Your task to perform on an android device: find snoozed emails in the gmail app Image 0: 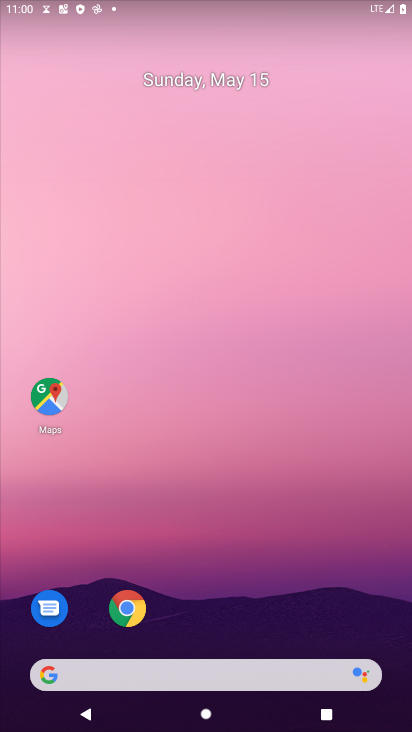
Step 0: drag from (346, 522) to (294, 142)
Your task to perform on an android device: find snoozed emails in the gmail app Image 1: 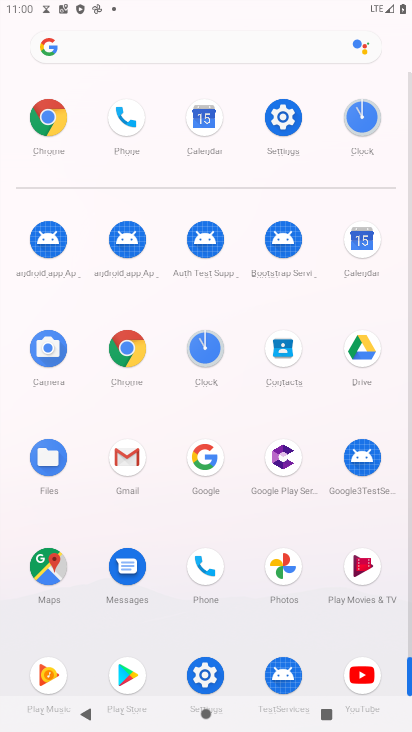
Step 1: click (127, 460)
Your task to perform on an android device: find snoozed emails in the gmail app Image 2: 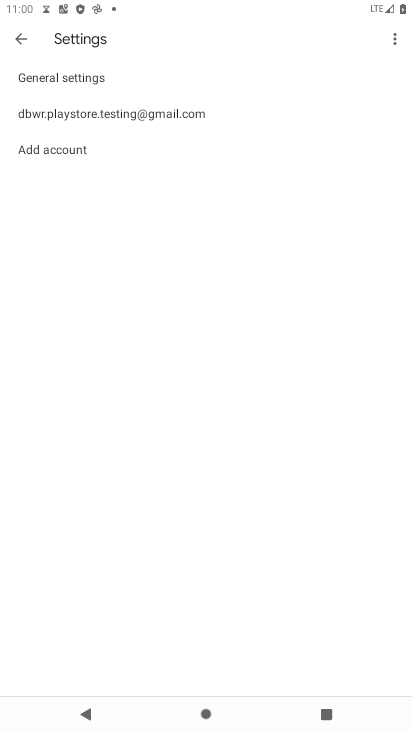
Step 2: click (55, 117)
Your task to perform on an android device: find snoozed emails in the gmail app Image 3: 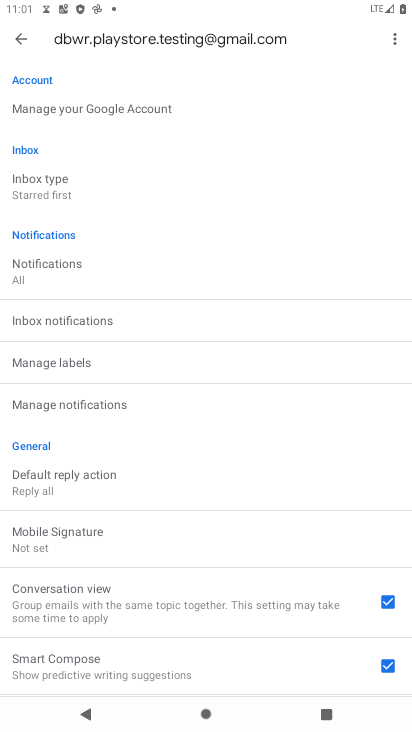
Step 3: click (21, 46)
Your task to perform on an android device: find snoozed emails in the gmail app Image 4: 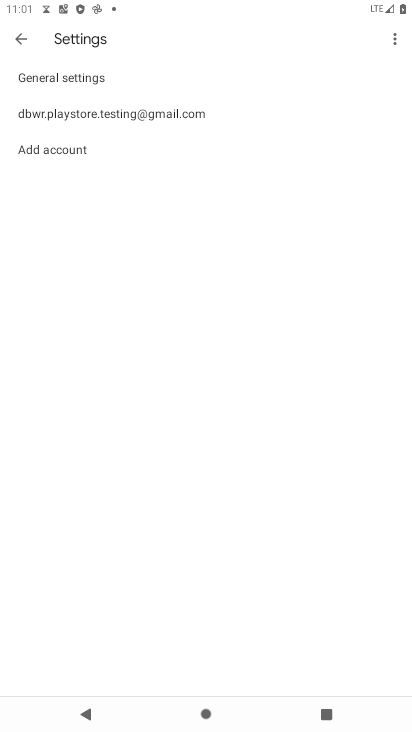
Step 4: click (21, 46)
Your task to perform on an android device: find snoozed emails in the gmail app Image 5: 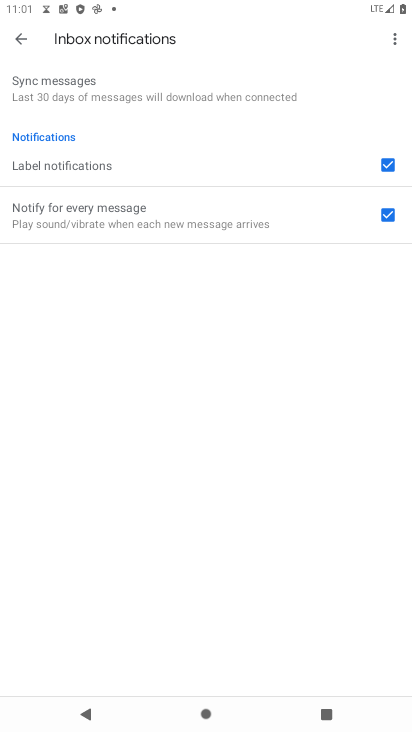
Step 5: click (20, 44)
Your task to perform on an android device: find snoozed emails in the gmail app Image 6: 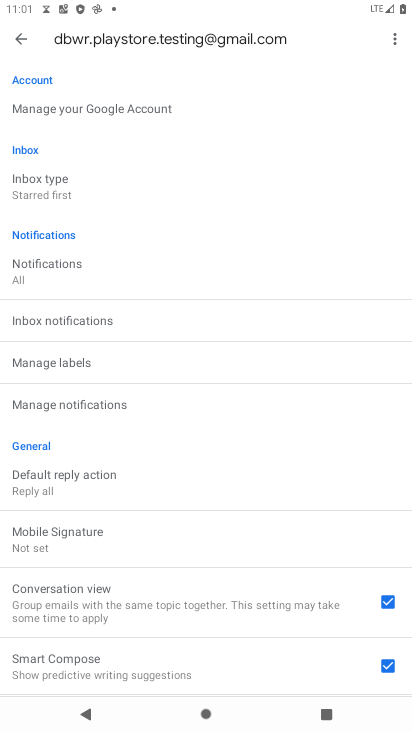
Step 6: click (20, 45)
Your task to perform on an android device: find snoozed emails in the gmail app Image 7: 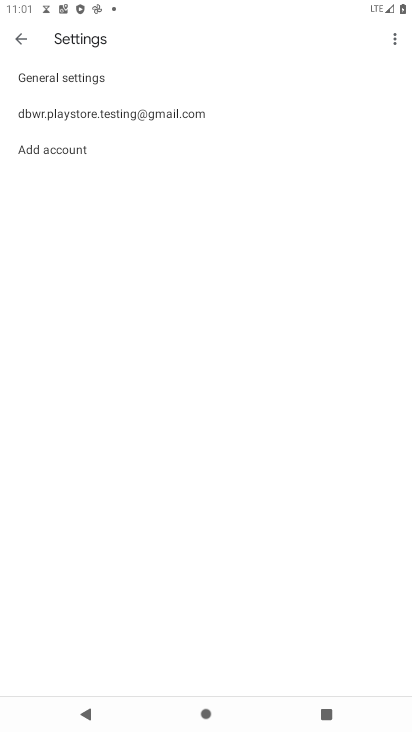
Step 7: click (20, 45)
Your task to perform on an android device: find snoozed emails in the gmail app Image 8: 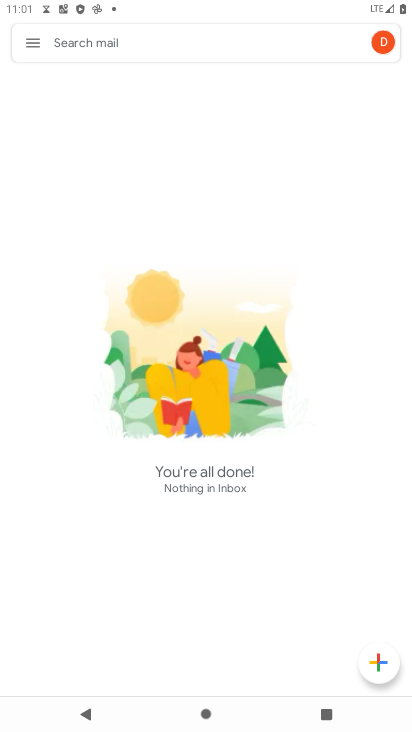
Step 8: click (20, 45)
Your task to perform on an android device: find snoozed emails in the gmail app Image 9: 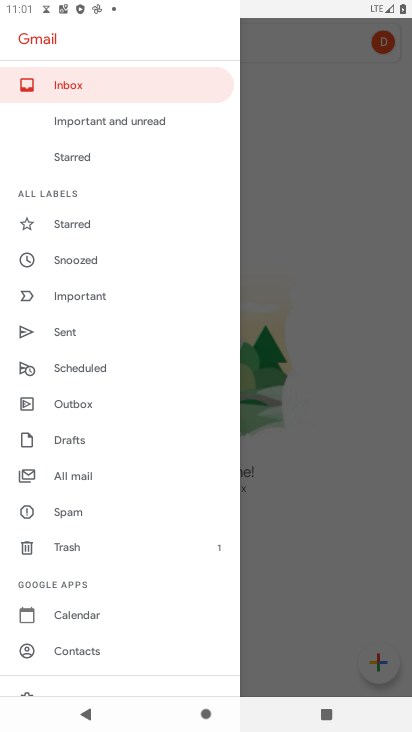
Step 9: click (67, 255)
Your task to perform on an android device: find snoozed emails in the gmail app Image 10: 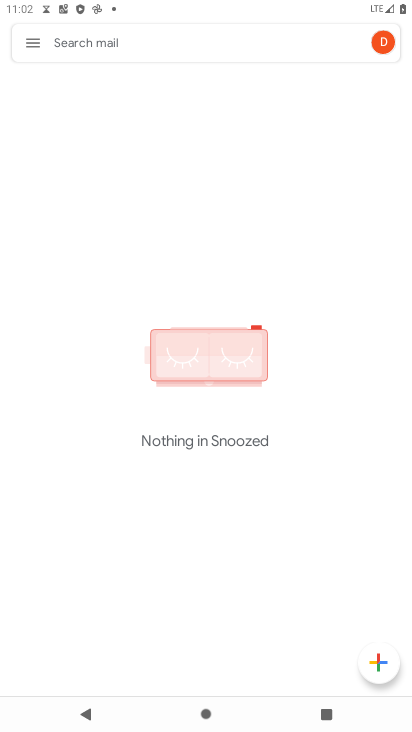
Step 10: task complete